Your task to perform on an android device: change the clock style Image 0: 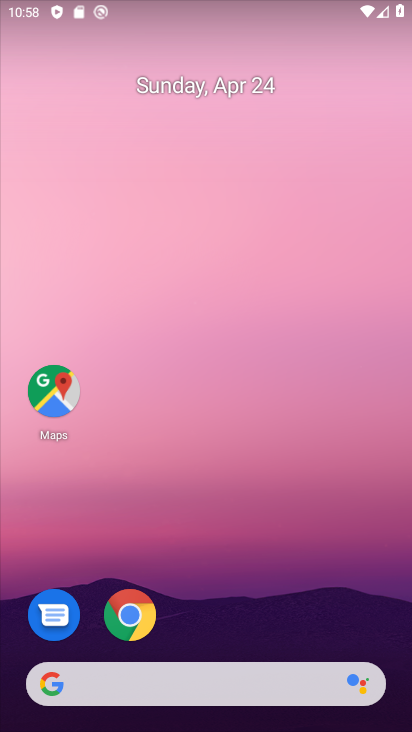
Step 0: drag from (229, 618) to (247, 203)
Your task to perform on an android device: change the clock style Image 1: 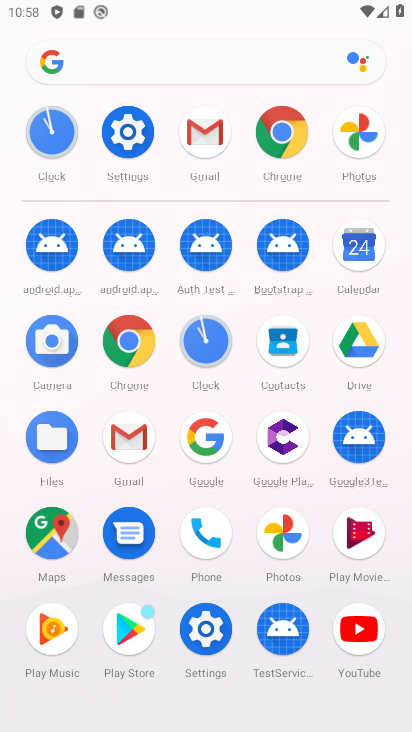
Step 1: click (187, 339)
Your task to perform on an android device: change the clock style Image 2: 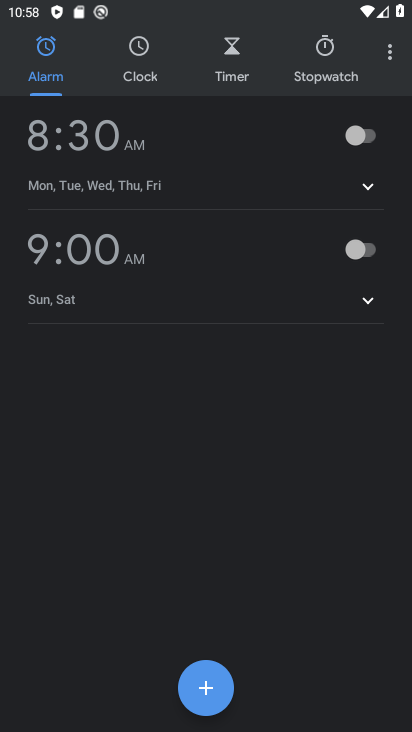
Step 2: click (389, 47)
Your task to perform on an android device: change the clock style Image 3: 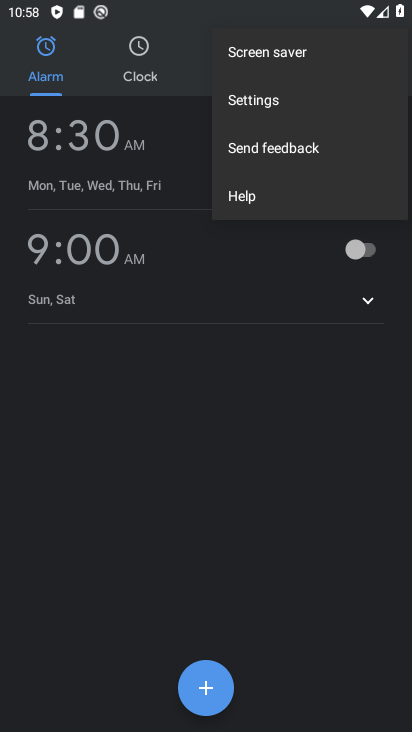
Step 3: click (282, 99)
Your task to perform on an android device: change the clock style Image 4: 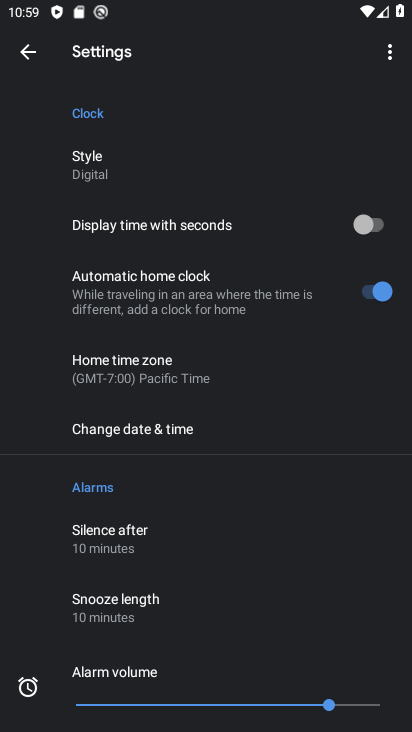
Step 4: click (124, 168)
Your task to perform on an android device: change the clock style Image 5: 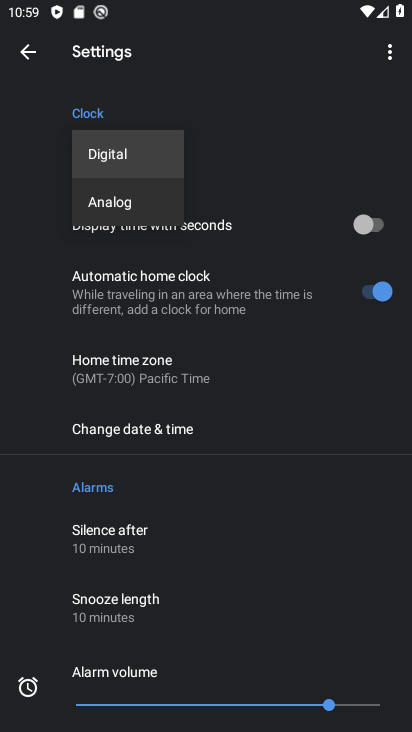
Step 5: click (120, 207)
Your task to perform on an android device: change the clock style Image 6: 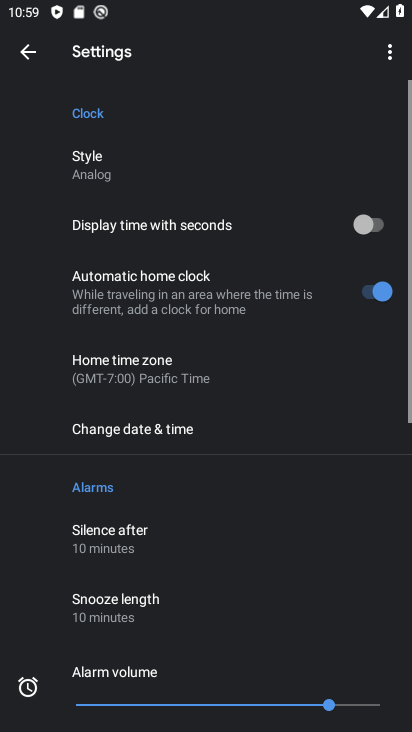
Step 6: task complete